Your task to perform on an android device: Go to notification settings Image 0: 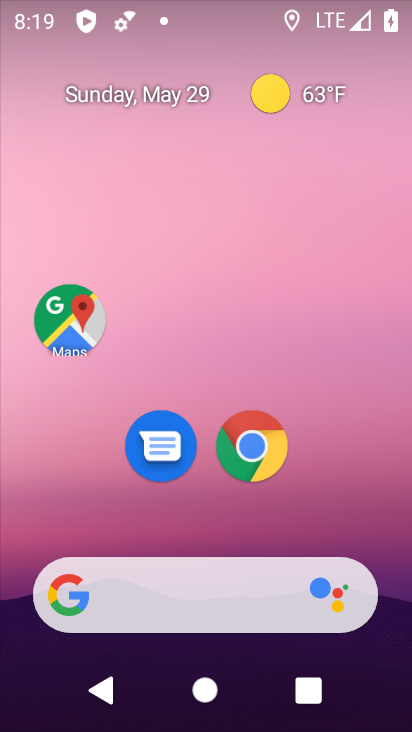
Step 0: drag from (199, 524) to (268, 257)
Your task to perform on an android device: Go to notification settings Image 1: 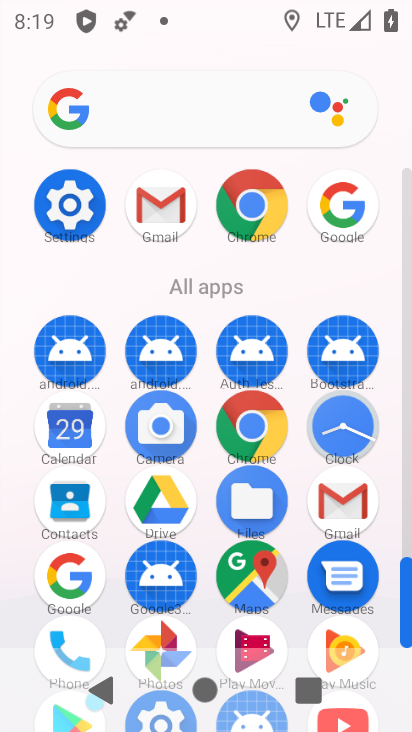
Step 1: click (73, 223)
Your task to perform on an android device: Go to notification settings Image 2: 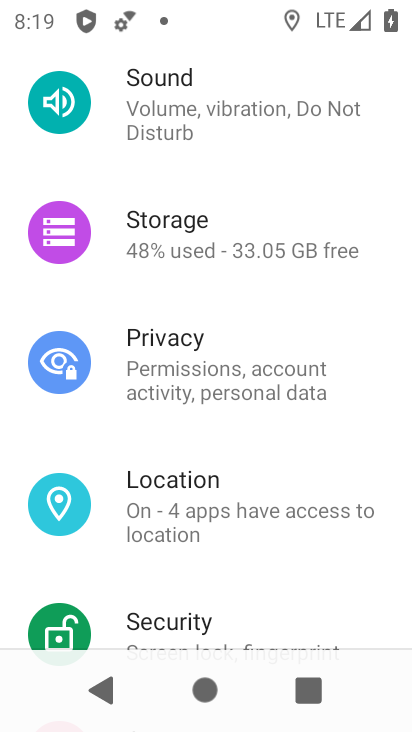
Step 2: drag from (204, 175) to (243, 582)
Your task to perform on an android device: Go to notification settings Image 3: 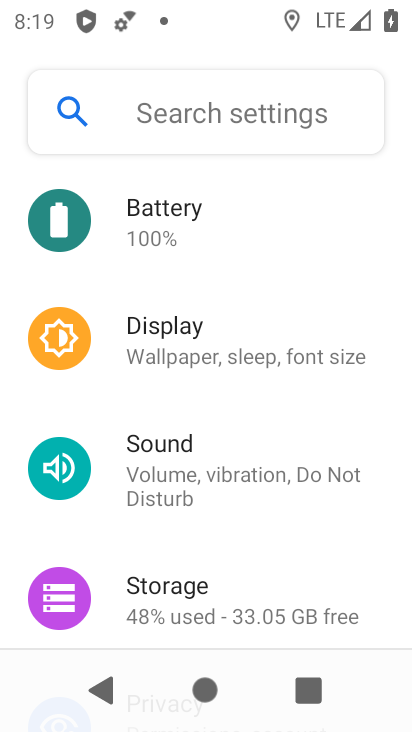
Step 3: drag from (225, 268) to (280, 585)
Your task to perform on an android device: Go to notification settings Image 4: 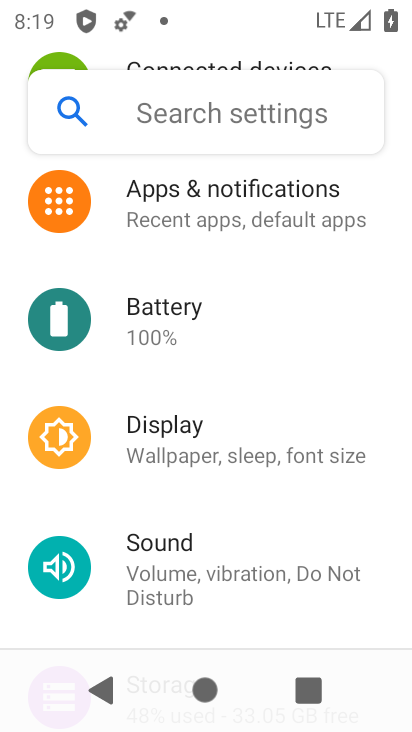
Step 4: click (226, 212)
Your task to perform on an android device: Go to notification settings Image 5: 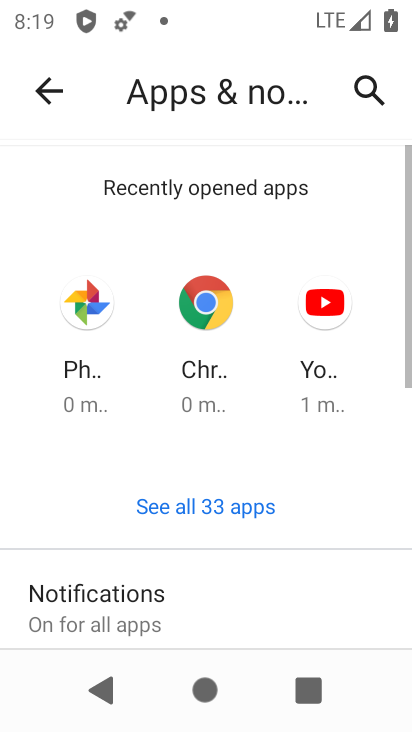
Step 5: drag from (210, 593) to (229, 119)
Your task to perform on an android device: Go to notification settings Image 6: 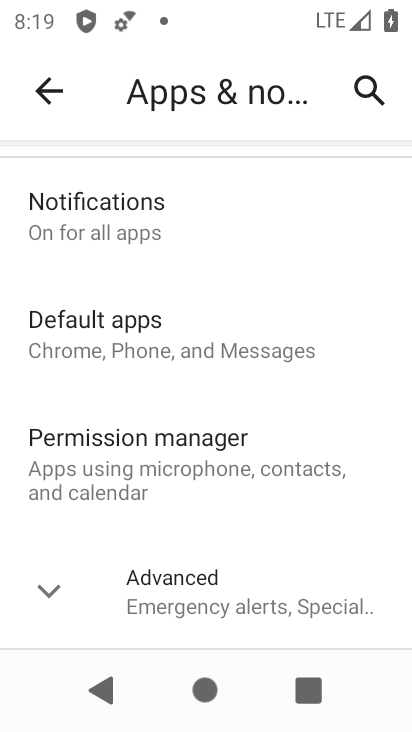
Step 6: drag from (233, 485) to (252, 284)
Your task to perform on an android device: Go to notification settings Image 7: 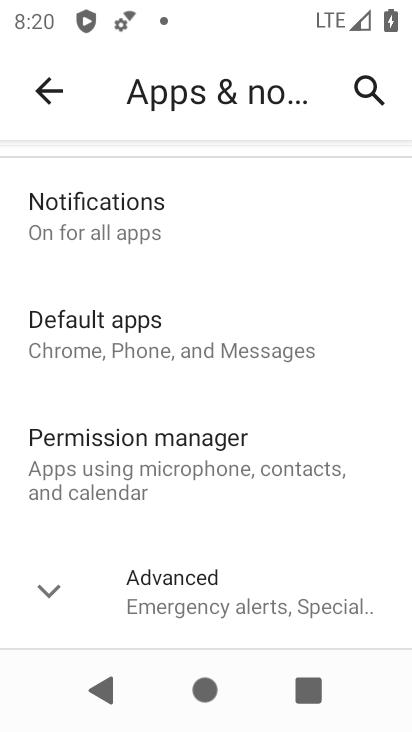
Step 7: click (195, 226)
Your task to perform on an android device: Go to notification settings Image 8: 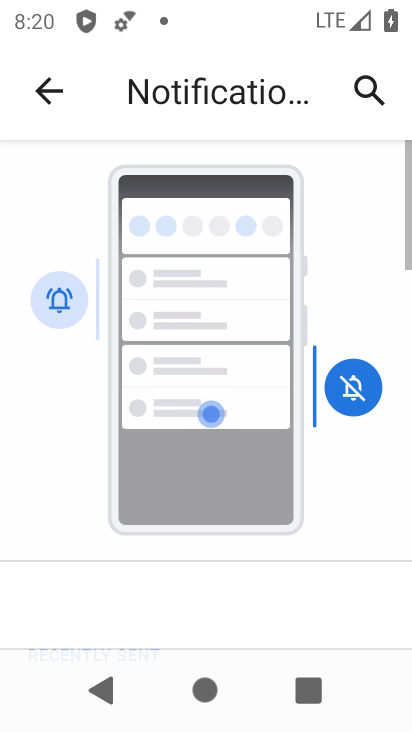
Step 8: task complete